Your task to perform on an android device: turn notification dots off Image 0: 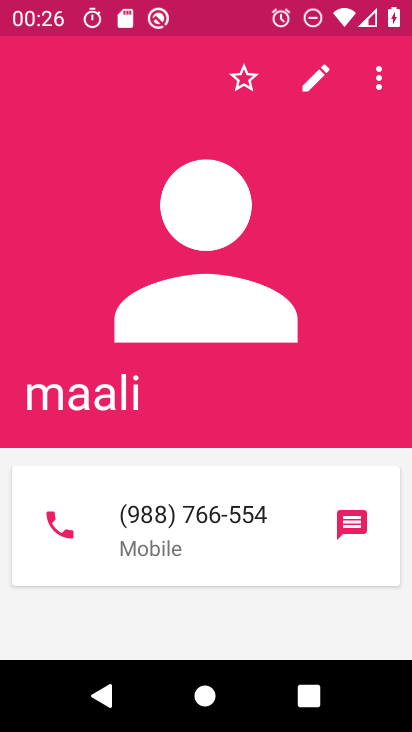
Step 0: press home button
Your task to perform on an android device: turn notification dots off Image 1: 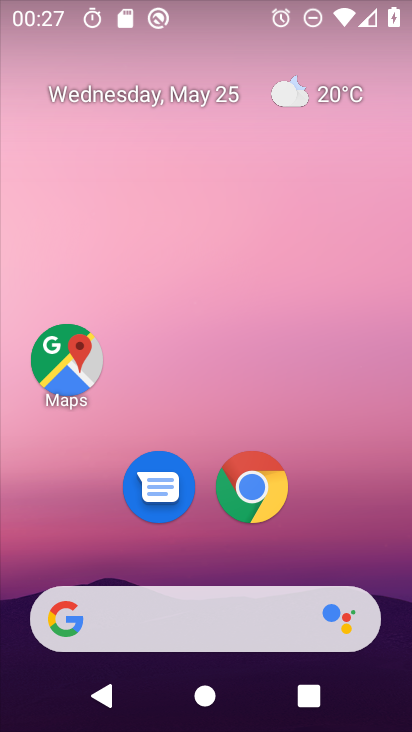
Step 1: drag from (343, 579) to (360, 5)
Your task to perform on an android device: turn notification dots off Image 2: 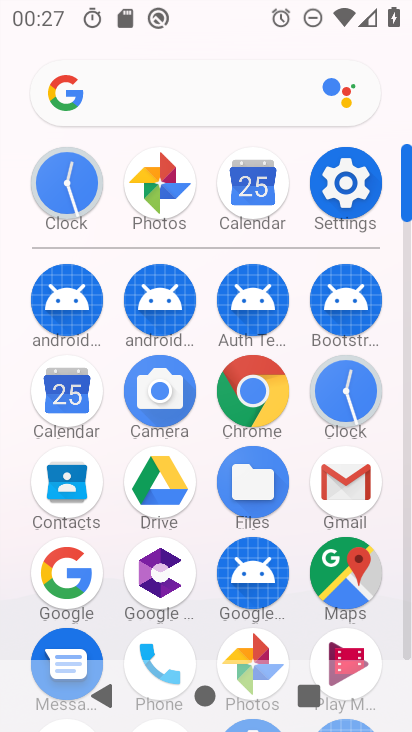
Step 2: click (344, 194)
Your task to perform on an android device: turn notification dots off Image 3: 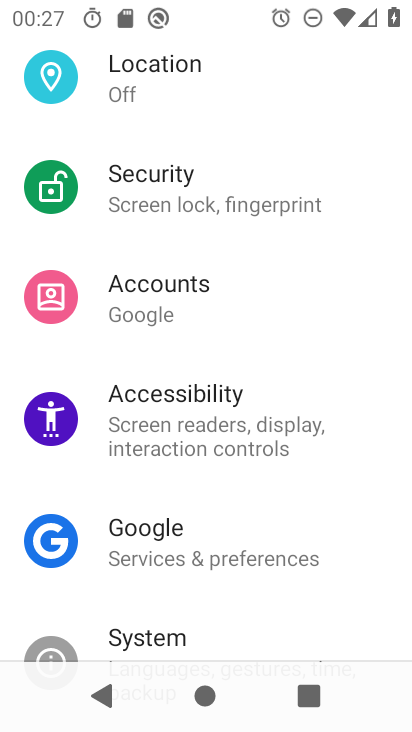
Step 3: drag from (335, 193) to (384, 542)
Your task to perform on an android device: turn notification dots off Image 4: 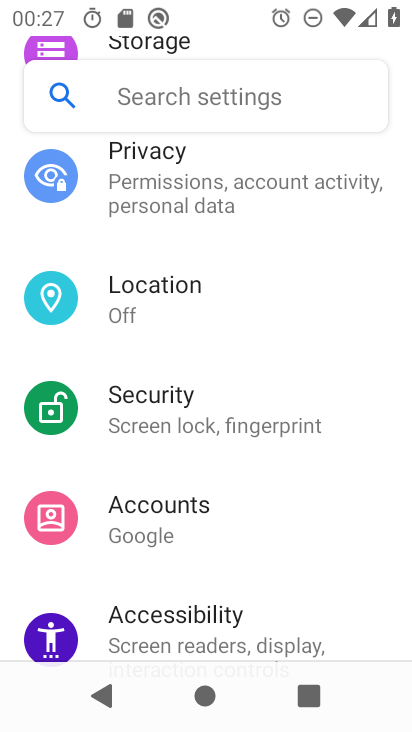
Step 4: drag from (298, 276) to (309, 621)
Your task to perform on an android device: turn notification dots off Image 5: 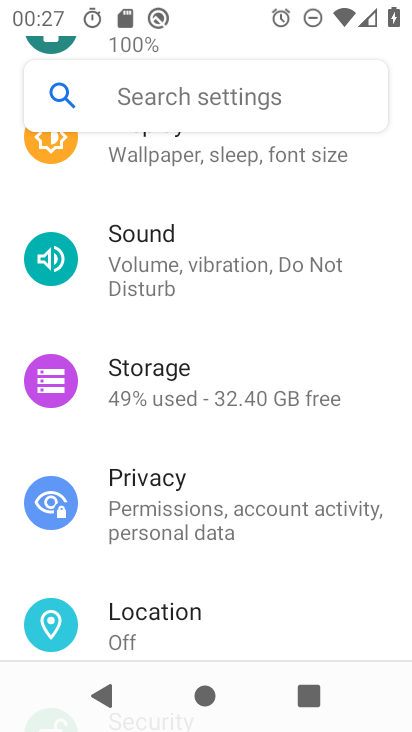
Step 5: drag from (228, 250) to (263, 574)
Your task to perform on an android device: turn notification dots off Image 6: 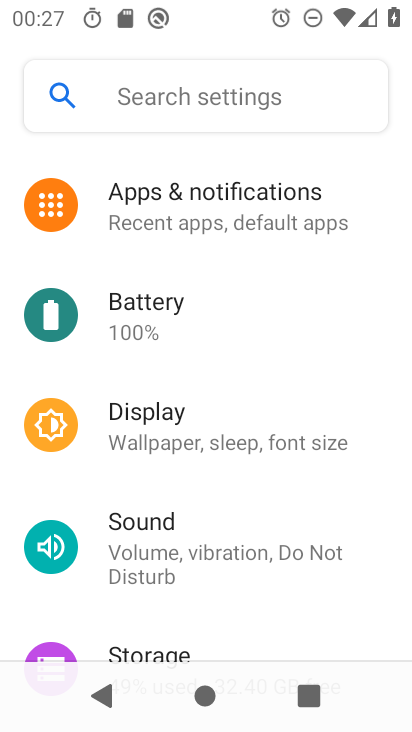
Step 6: click (188, 222)
Your task to perform on an android device: turn notification dots off Image 7: 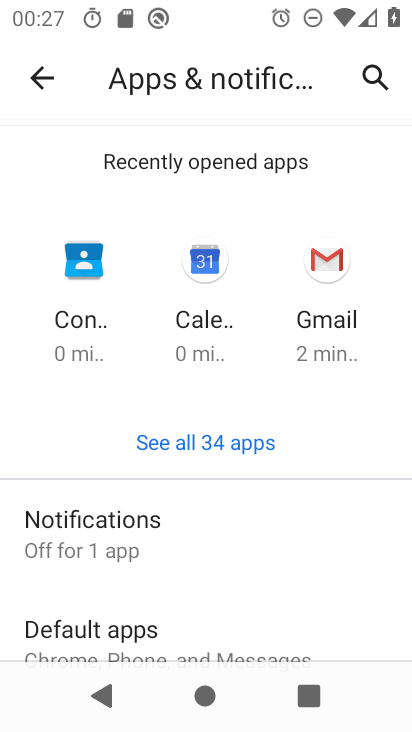
Step 7: click (49, 526)
Your task to perform on an android device: turn notification dots off Image 8: 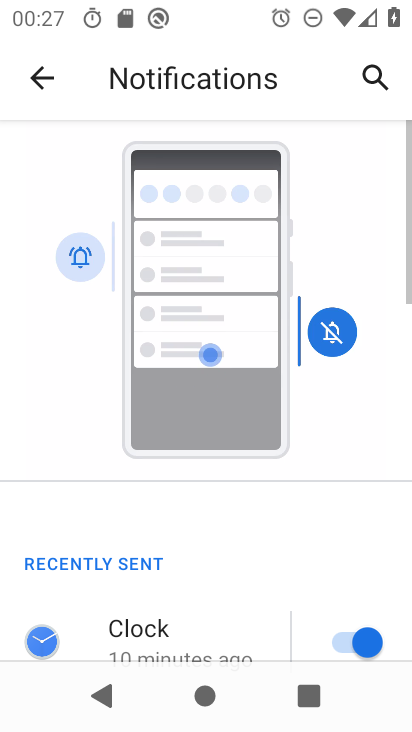
Step 8: drag from (229, 593) to (228, 101)
Your task to perform on an android device: turn notification dots off Image 9: 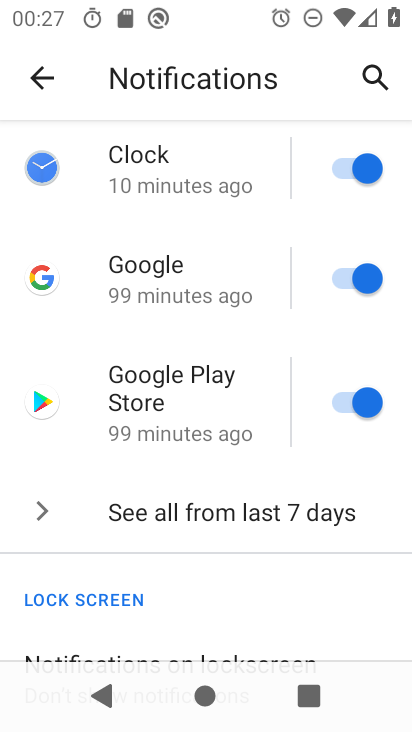
Step 9: drag from (176, 501) to (175, 232)
Your task to perform on an android device: turn notification dots off Image 10: 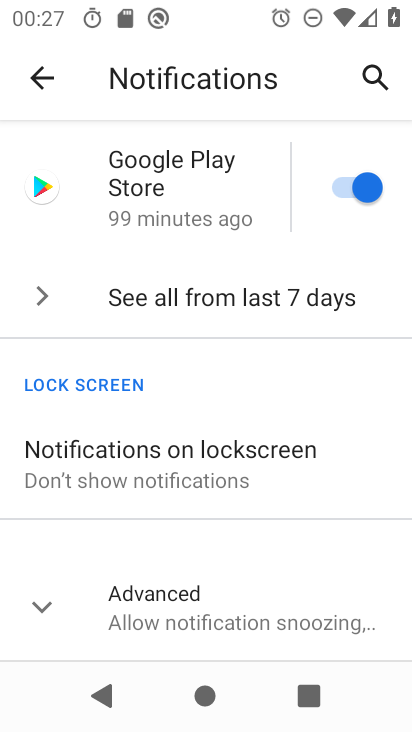
Step 10: click (40, 618)
Your task to perform on an android device: turn notification dots off Image 11: 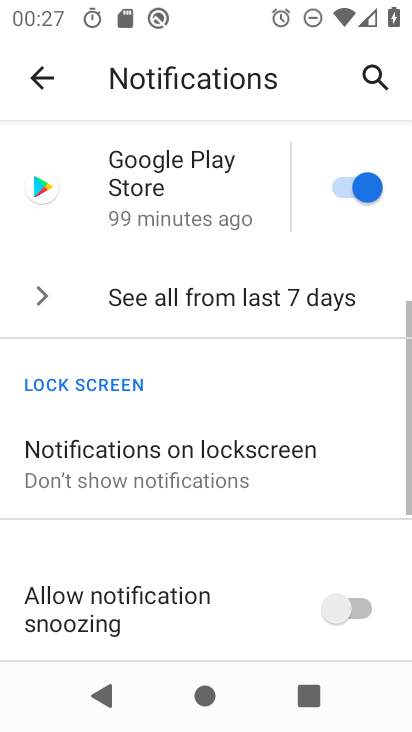
Step 11: drag from (169, 618) to (180, 171)
Your task to perform on an android device: turn notification dots off Image 12: 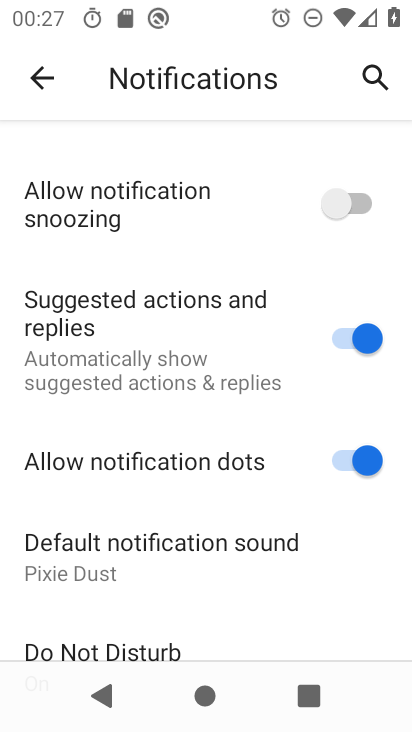
Step 12: click (355, 467)
Your task to perform on an android device: turn notification dots off Image 13: 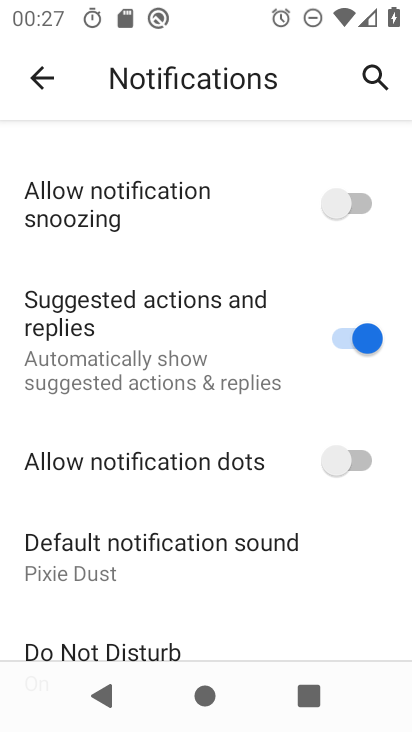
Step 13: task complete